Your task to perform on an android device: Go to CNN.com Image 0: 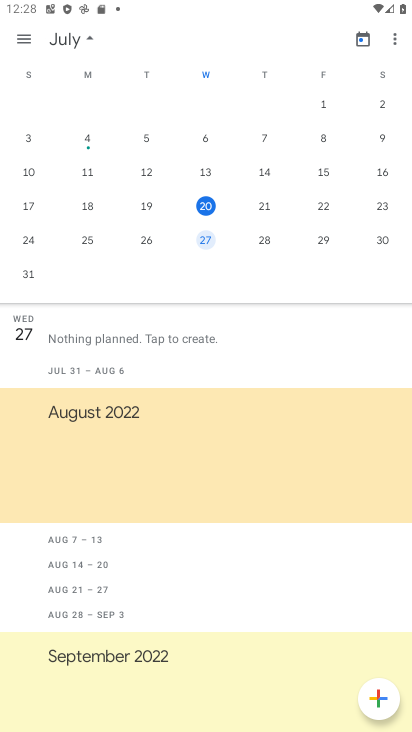
Step 0: press home button
Your task to perform on an android device: Go to CNN.com Image 1: 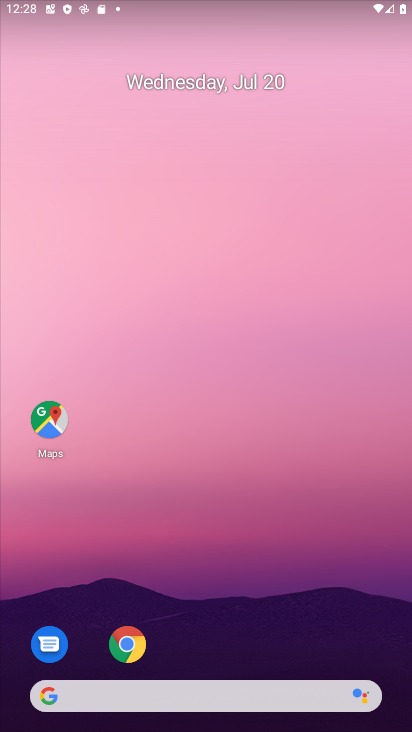
Step 1: click (144, 647)
Your task to perform on an android device: Go to CNN.com Image 2: 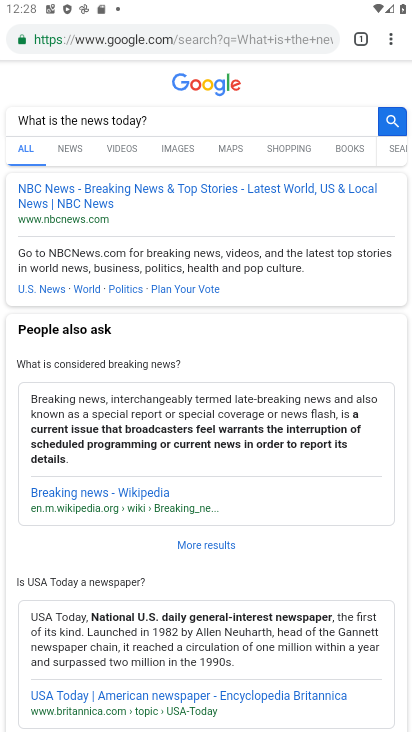
Step 2: click (176, 39)
Your task to perform on an android device: Go to CNN.com Image 3: 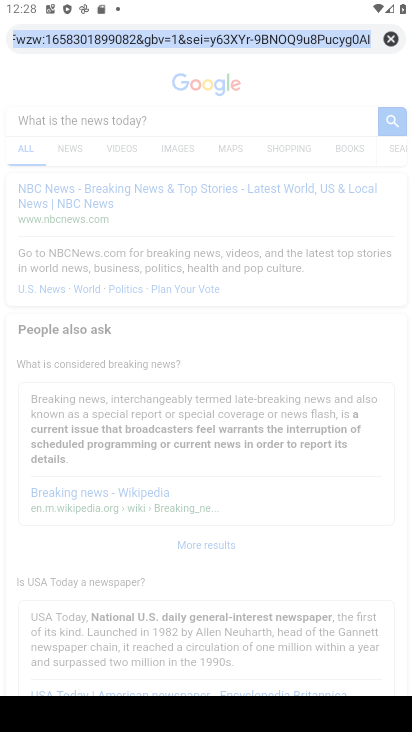
Step 3: type "CNN.com"
Your task to perform on an android device: Go to CNN.com Image 4: 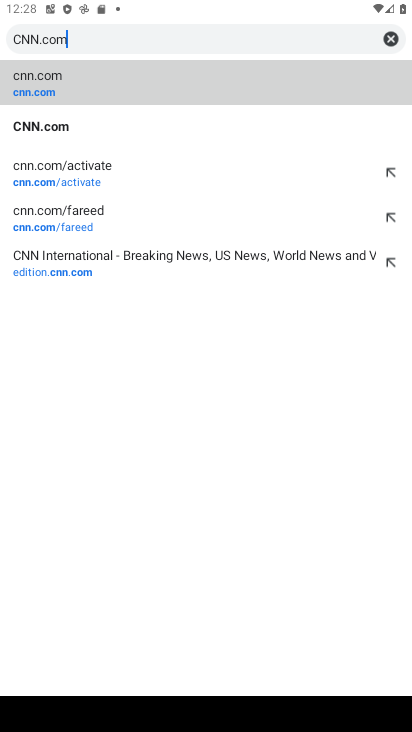
Step 4: type ""
Your task to perform on an android device: Go to CNN.com Image 5: 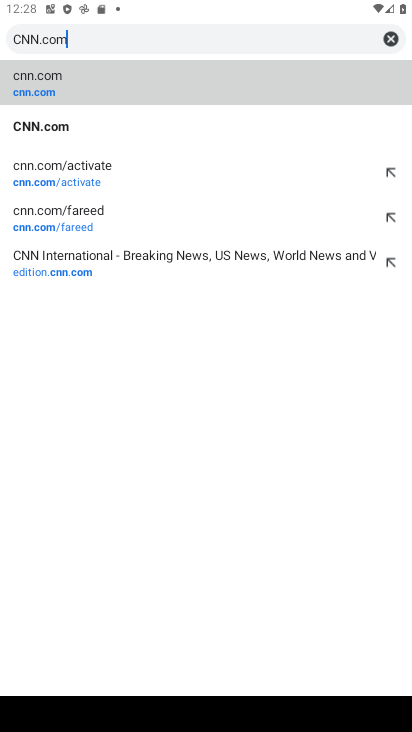
Step 5: click (50, 76)
Your task to perform on an android device: Go to CNN.com Image 6: 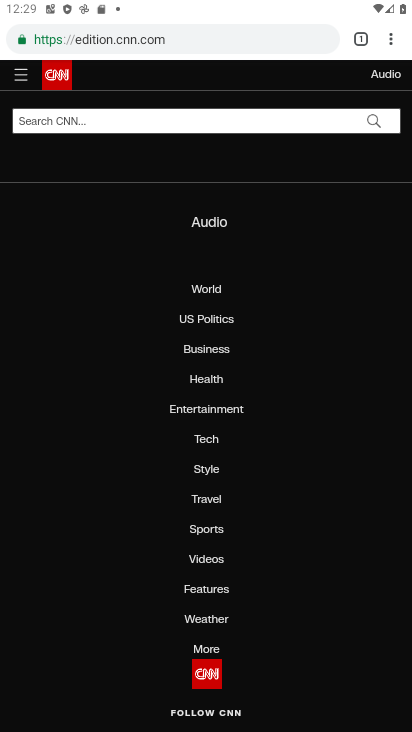
Step 6: task complete